Your task to perform on an android device: delete the emails in spam in the gmail app Image 0: 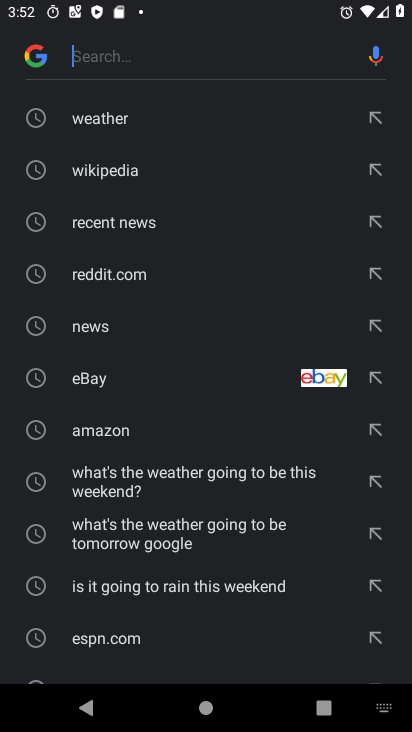
Step 0: press home button
Your task to perform on an android device: delete the emails in spam in the gmail app Image 1: 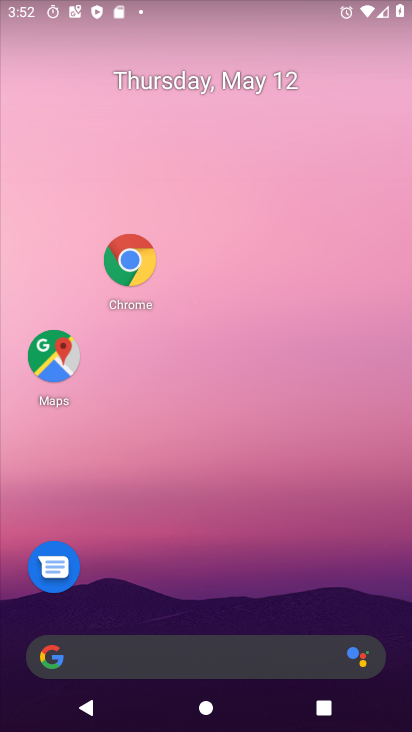
Step 1: drag from (285, 636) to (232, 262)
Your task to perform on an android device: delete the emails in spam in the gmail app Image 2: 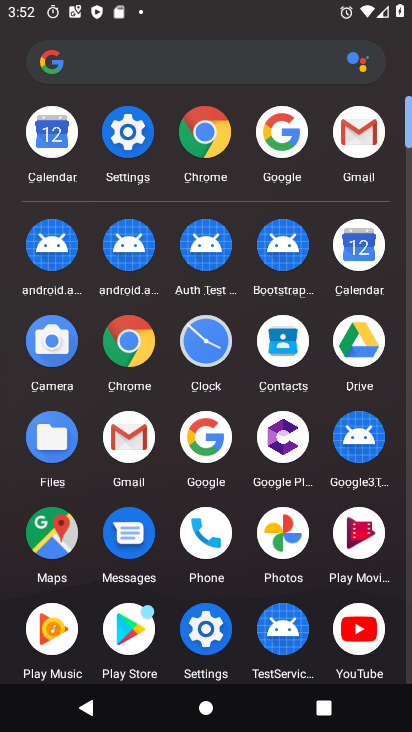
Step 2: click (349, 129)
Your task to perform on an android device: delete the emails in spam in the gmail app Image 3: 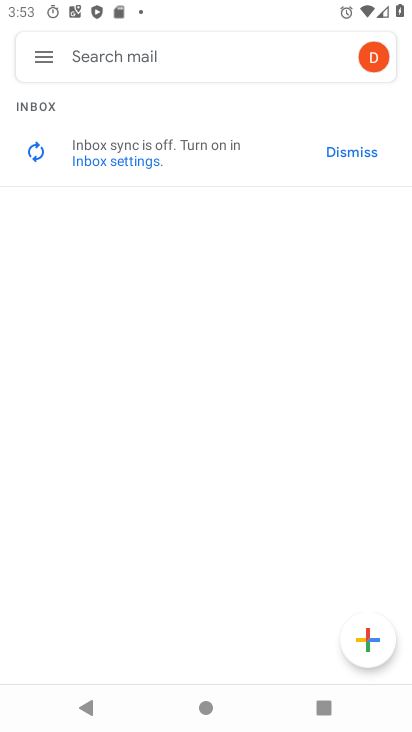
Step 3: click (39, 56)
Your task to perform on an android device: delete the emails in spam in the gmail app Image 4: 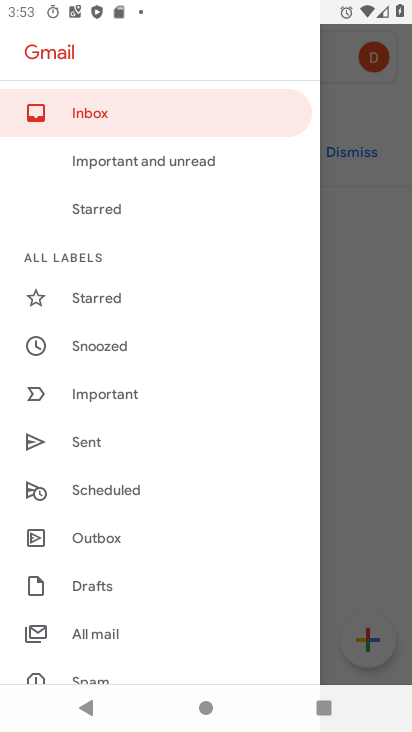
Step 4: drag from (109, 672) to (107, 344)
Your task to perform on an android device: delete the emails in spam in the gmail app Image 5: 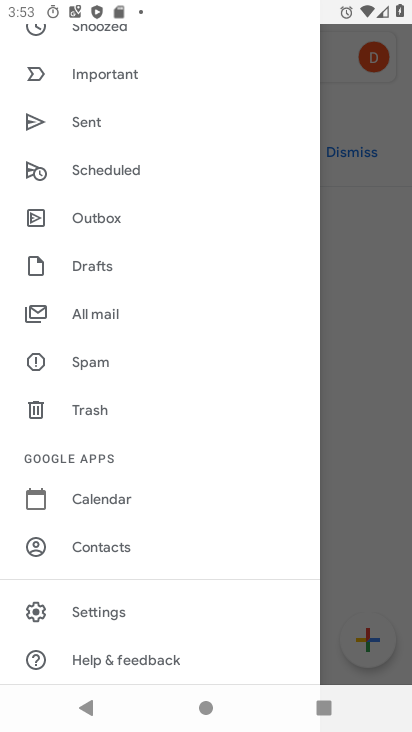
Step 5: click (86, 353)
Your task to perform on an android device: delete the emails in spam in the gmail app Image 6: 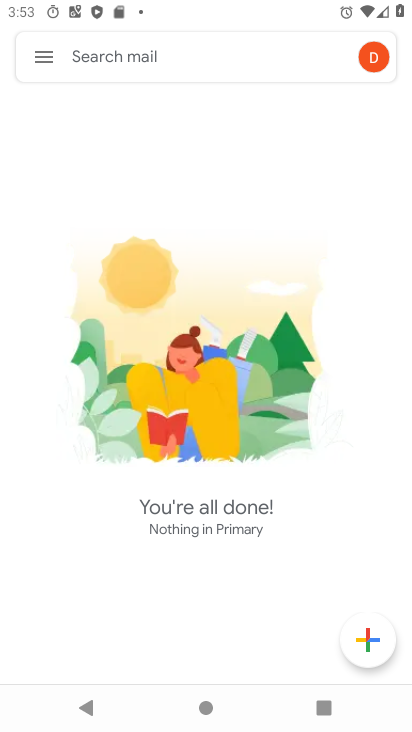
Step 6: task complete